Your task to perform on an android device: Go to calendar. Show me events next week Image 0: 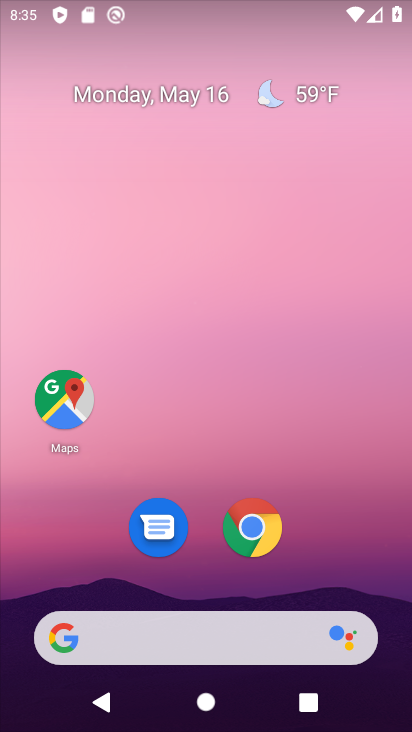
Step 0: drag from (387, 607) to (381, 218)
Your task to perform on an android device: Go to calendar. Show me events next week Image 1: 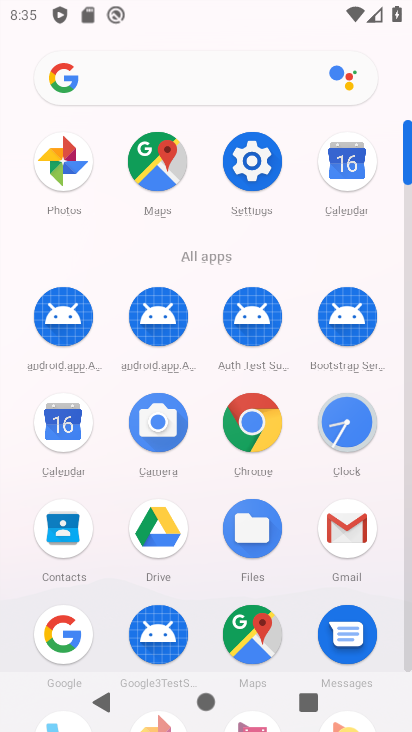
Step 1: click (64, 431)
Your task to perform on an android device: Go to calendar. Show me events next week Image 2: 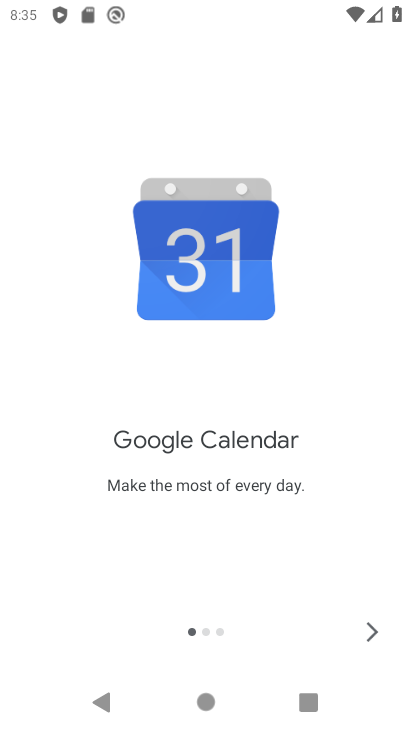
Step 2: click (365, 634)
Your task to perform on an android device: Go to calendar. Show me events next week Image 3: 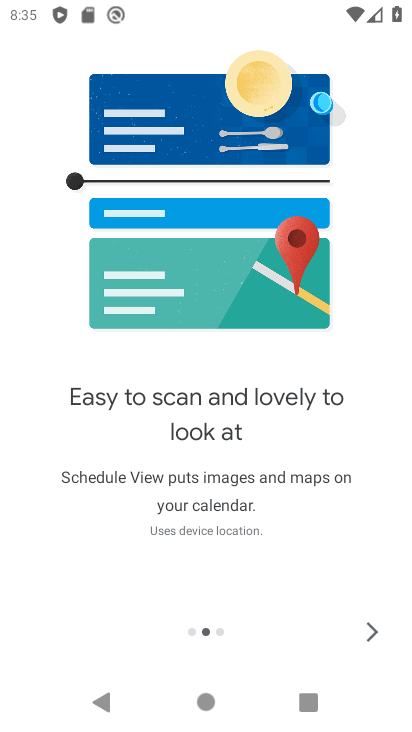
Step 3: click (365, 634)
Your task to perform on an android device: Go to calendar. Show me events next week Image 4: 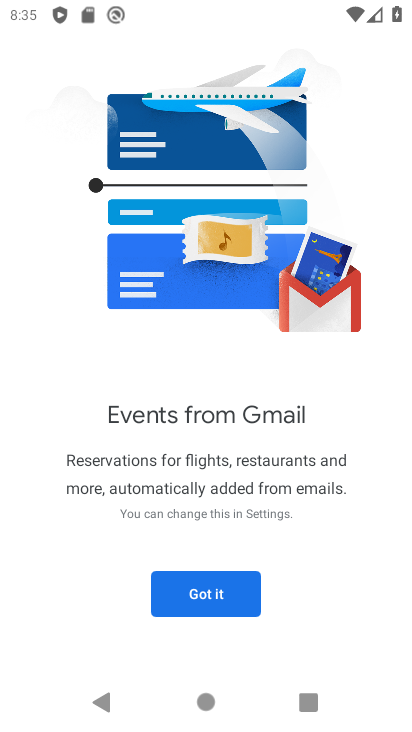
Step 4: click (229, 586)
Your task to perform on an android device: Go to calendar. Show me events next week Image 5: 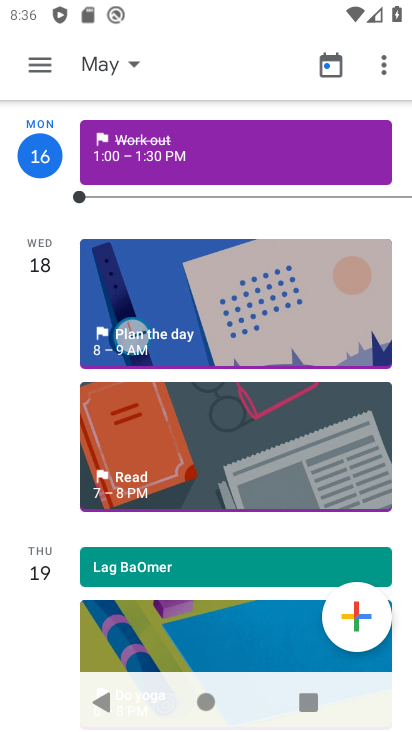
Step 5: click (49, 62)
Your task to perform on an android device: Go to calendar. Show me events next week Image 6: 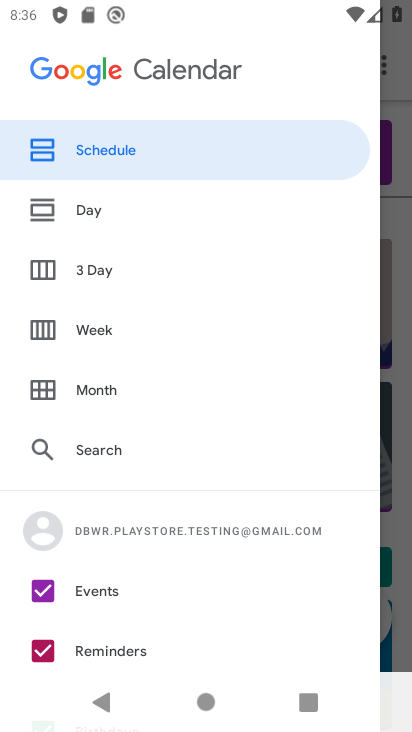
Step 6: click (71, 332)
Your task to perform on an android device: Go to calendar. Show me events next week Image 7: 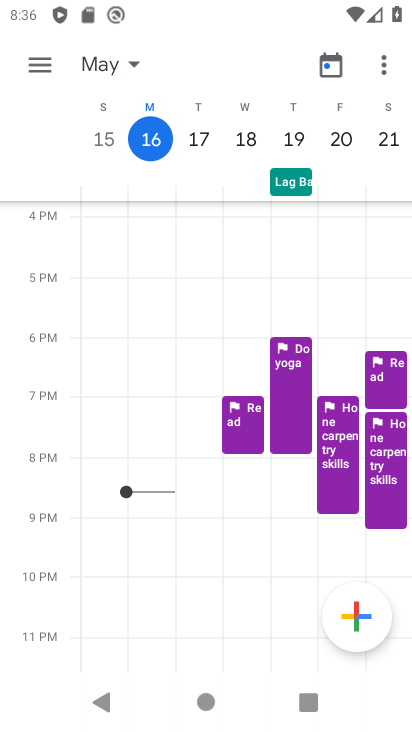
Step 7: click (138, 64)
Your task to perform on an android device: Go to calendar. Show me events next week Image 8: 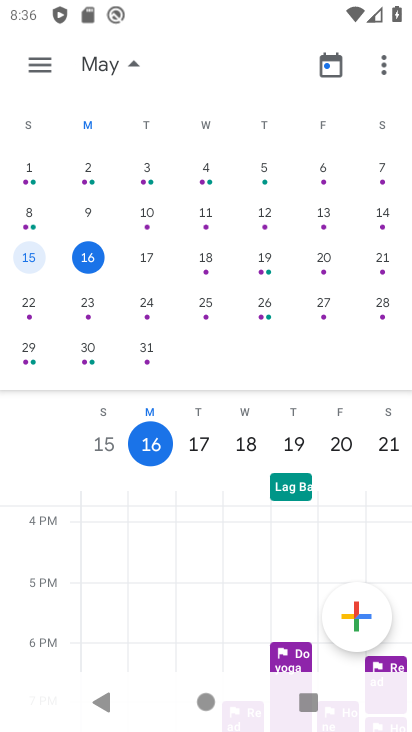
Step 8: click (147, 307)
Your task to perform on an android device: Go to calendar. Show me events next week Image 9: 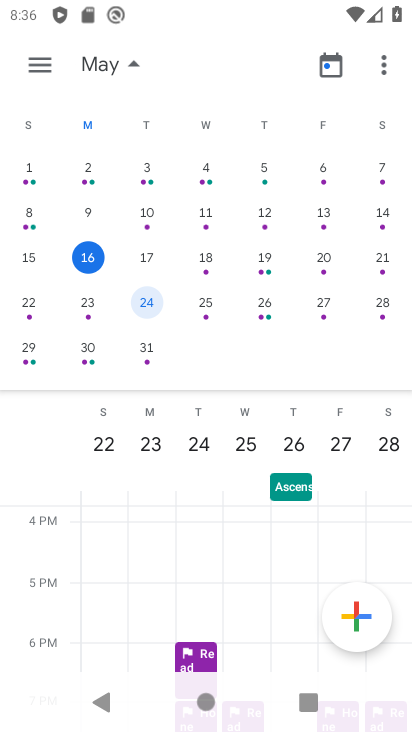
Step 9: click (34, 60)
Your task to perform on an android device: Go to calendar. Show me events next week Image 10: 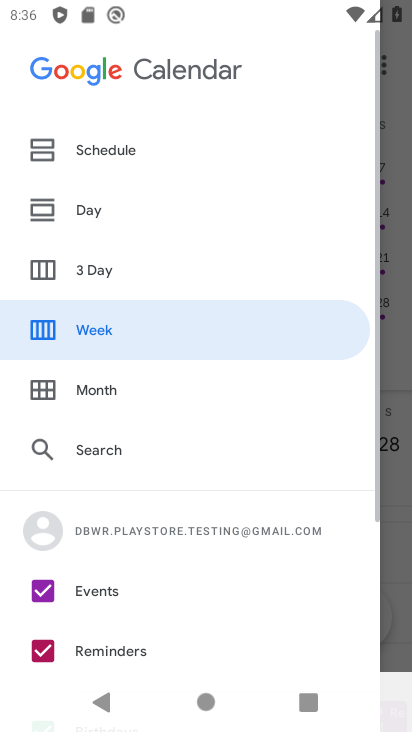
Step 10: click (77, 340)
Your task to perform on an android device: Go to calendar. Show me events next week Image 11: 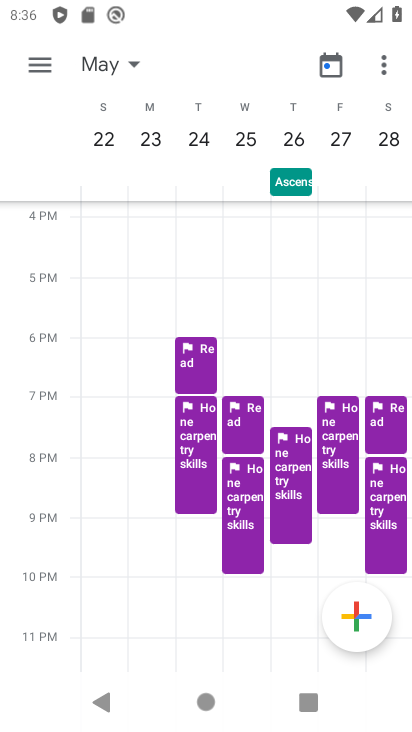
Step 11: task complete